Your task to perform on an android device: set the stopwatch Image 0: 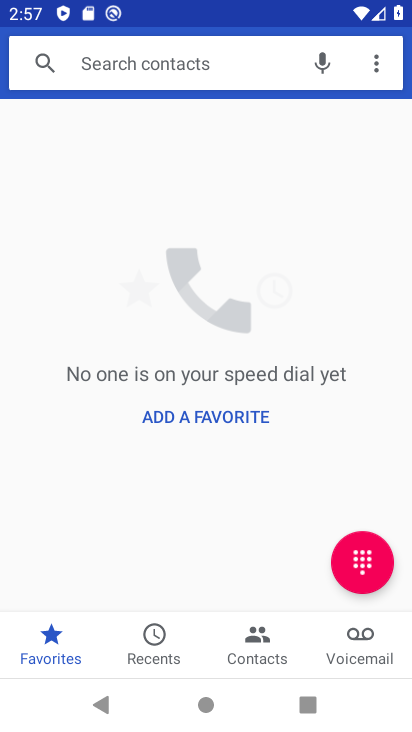
Step 0: press home button
Your task to perform on an android device: set the stopwatch Image 1: 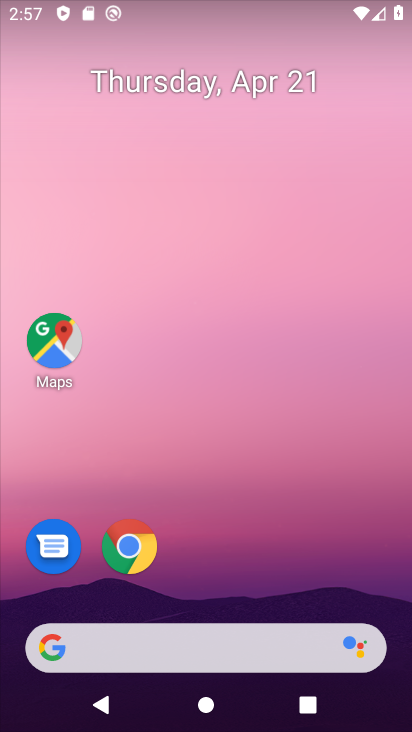
Step 1: drag from (152, 650) to (122, 158)
Your task to perform on an android device: set the stopwatch Image 2: 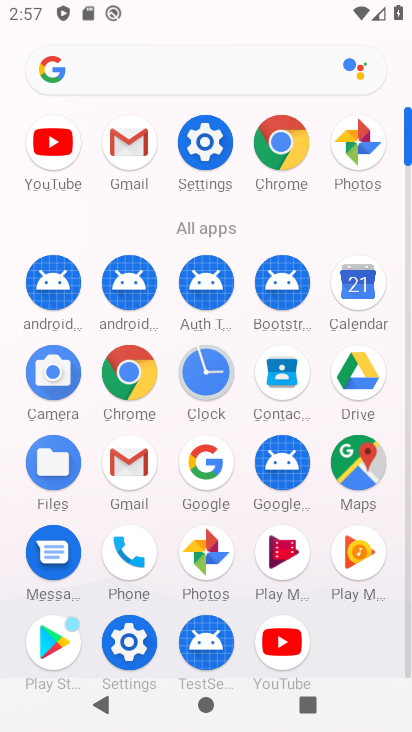
Step 2: click (222, 390)
Your task to perform on an android device: set the stopwatch Image 3: 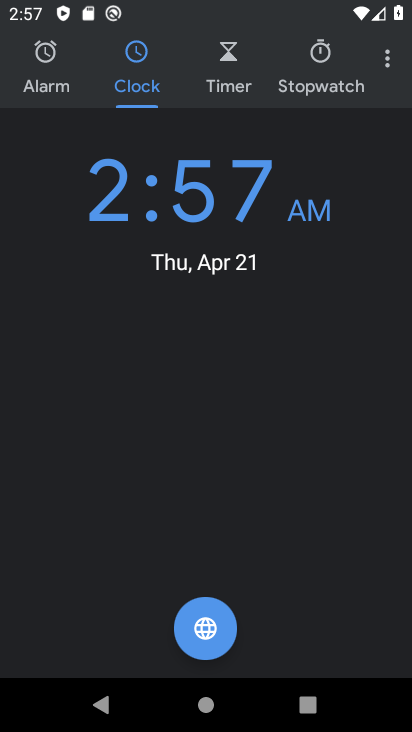
Step 3: click (332, 53)
Your task to perform on an android device: set the stopwatch Image 4: 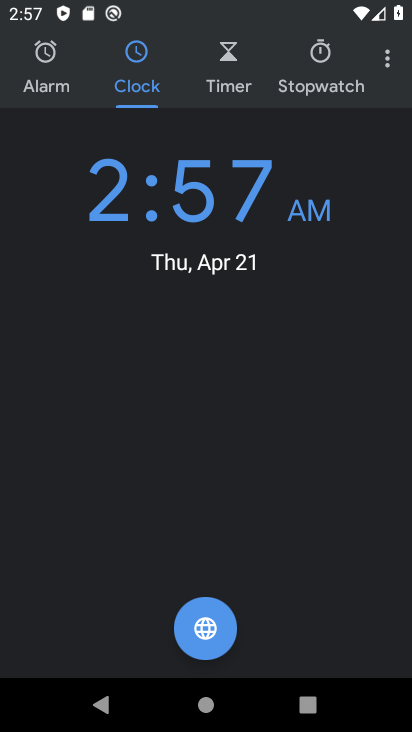
Step 4: click (308, 54)
Your task to perform on an android device: set the stopwatch Image 5: 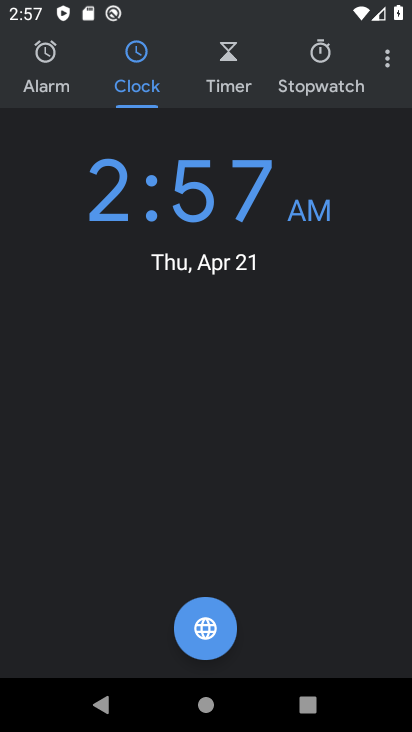
Step 5: click (332, 64)
Your task to perform on an android device: set the stopwatch Image 6: 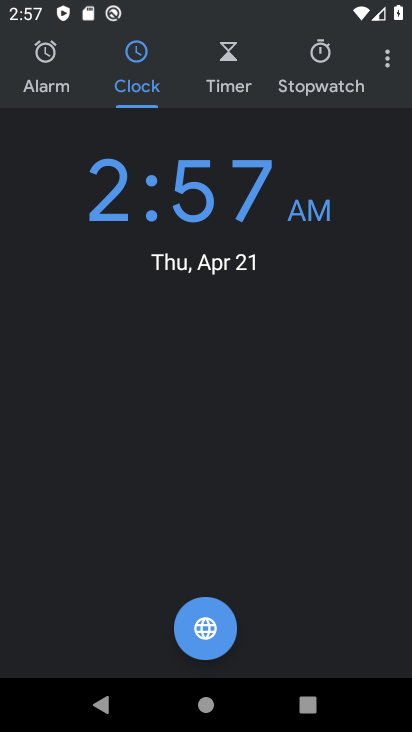
Step 6: click (324, 61)
Your task to perform on an android device: set the stopwatch Image 7: 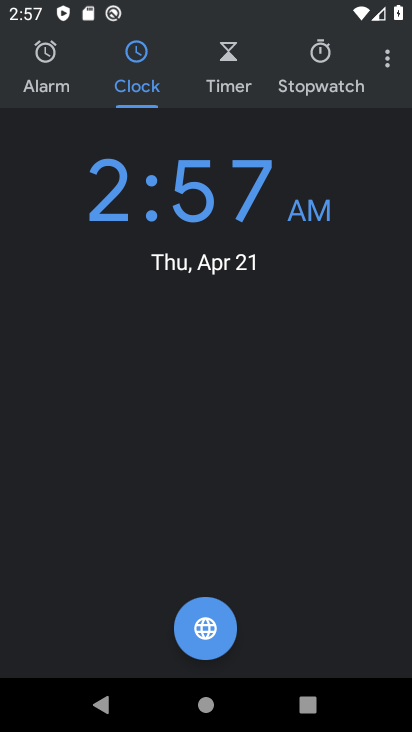
Step 7: click (327, 51)
Your task to perform on an android device: set the stopwatch Image 8: 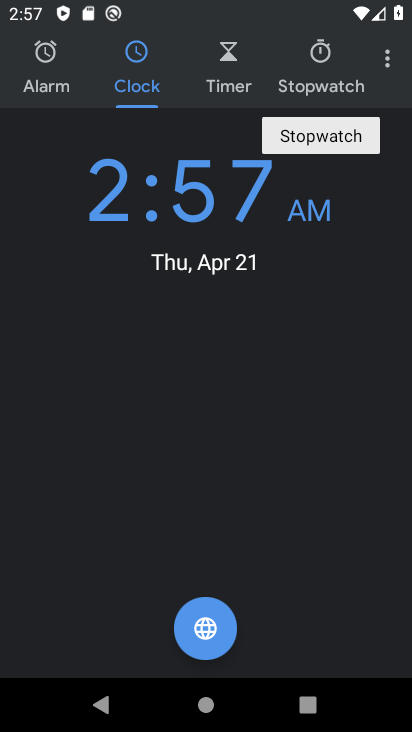
Step 8: click (327, 82)
Your task to perform on an android device: set the stopwatch Image 9: 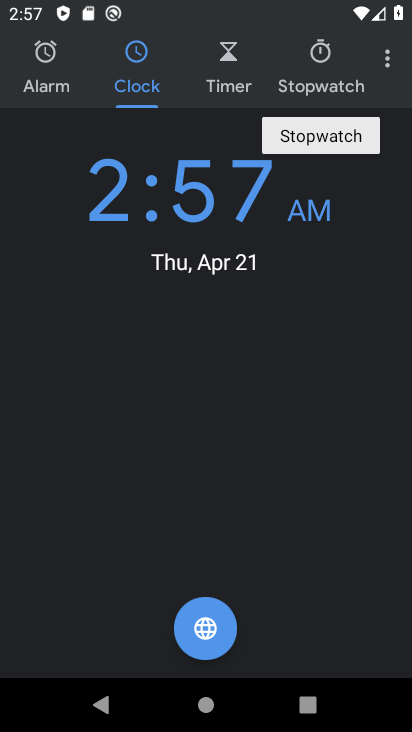
Step 9: click (327, 82)
Your task to perform on an android device: set the stopwatch Image 10: 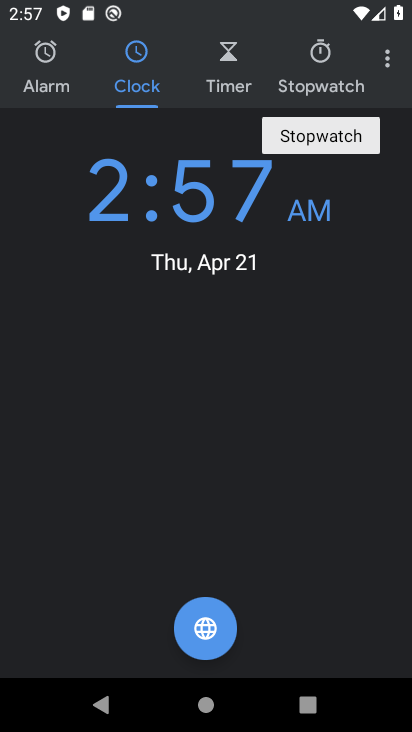
Step 10: click (327, 82)
Your task to perform on an android device: set the stopwatch Image 11: 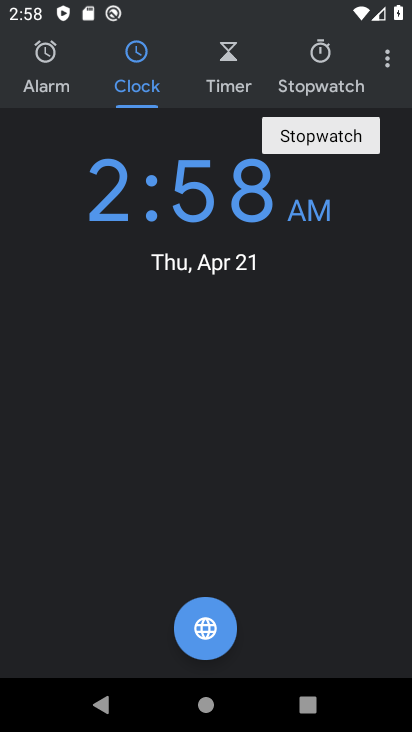
Step 11: click (337, 137)
Your task to perform on an android device: set the stopwatch Image 12: 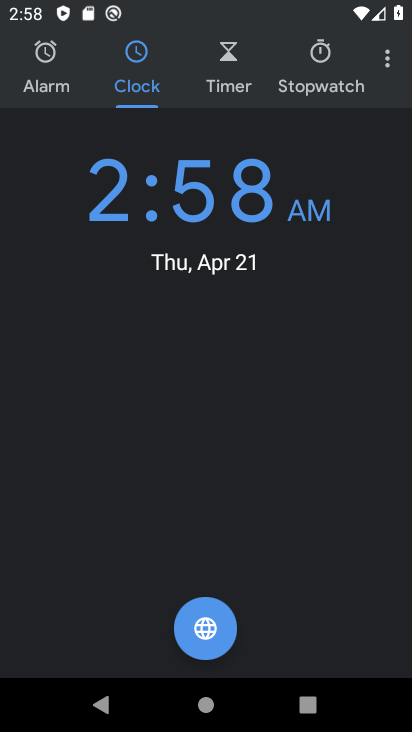
Step 12: click (333, 91)
Your task to perform on an android device: set the stopwatch Image 13: 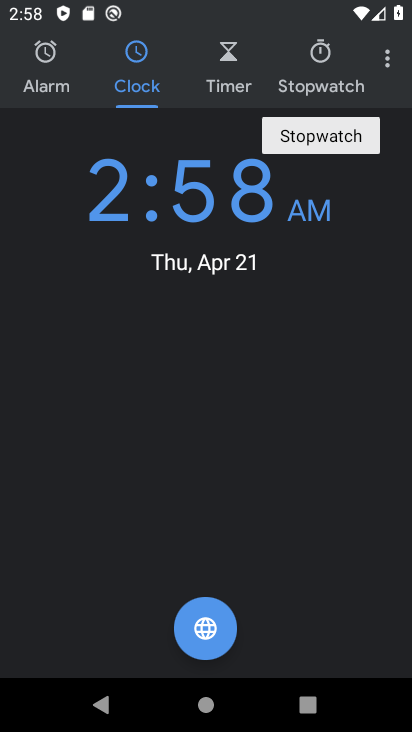
Step 13: click (332, 91)
Your task to perform on an android device: set the stopwatch Image 14: 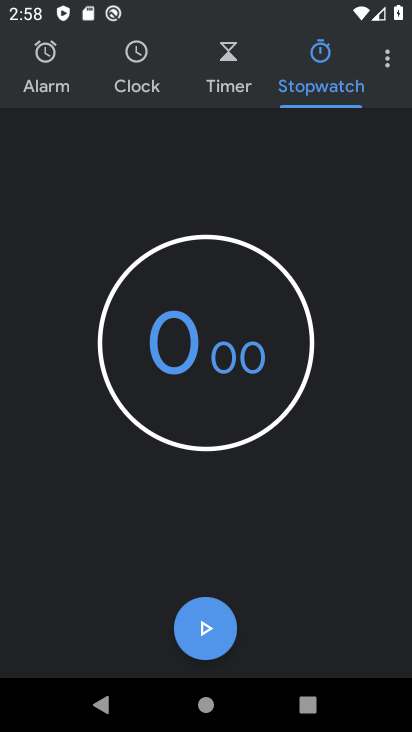
Step 14: click (218, 290)
Your task to perform on an android device: set the stopwatch Image 15: 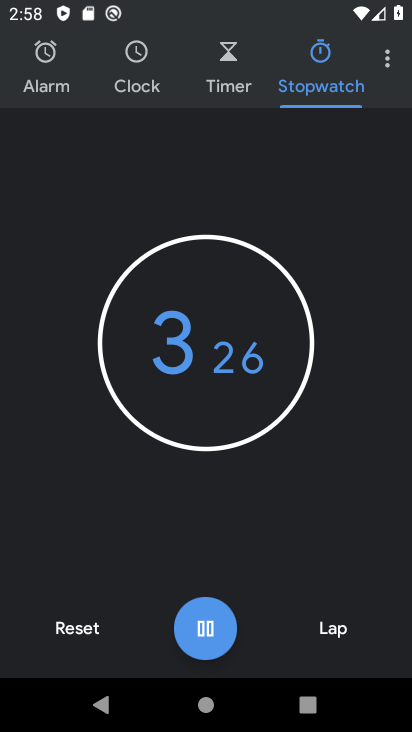
Step 15: task complete